Your task to perform on an android device: Clear all items from cart on bestbuy.com. Add "logitech g910" to the cart on bestbuy.com Image 0: 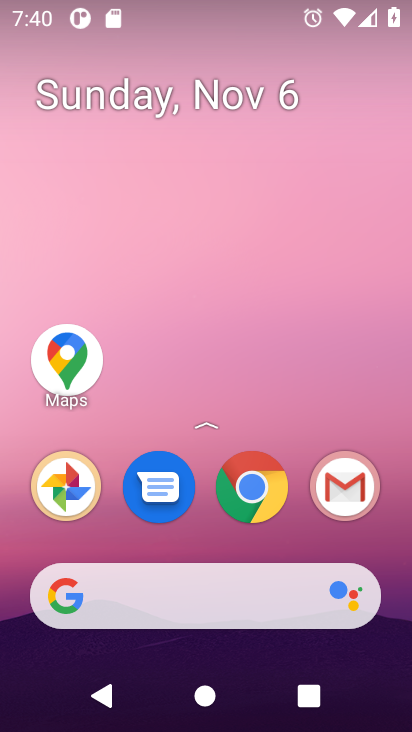
Step 0: click (251, 500)
Your task to perform on an android device: Clear all items from cart on bestbuy.com. Add "logitech g910" to the cart on bestbuy.com Image 1: 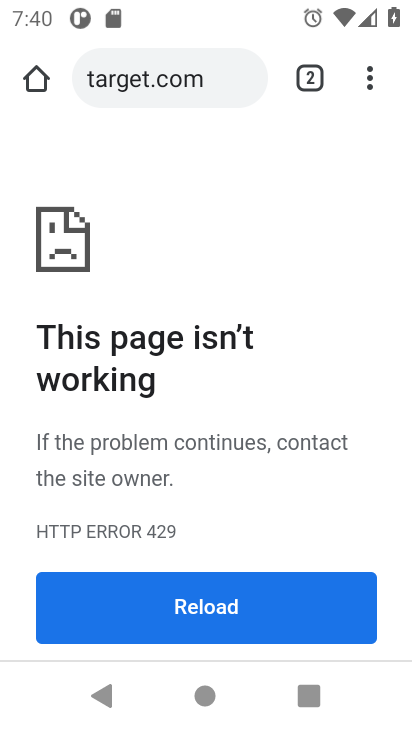
Step 1: click (199, 72)
Your task to perform on an android device: Clear all items from cart on bestbuy.com. Add "logitech g910" to the cart on bestbuy.com Image 2: 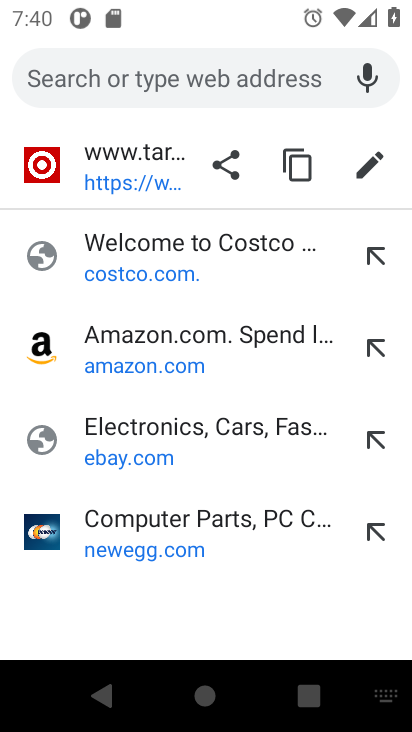
Step 2: type "bestbuy"
Your task to perform on an android device: Clear all items from cart on bestbuy.com. Add "logitech g910" to the cart on bestbuy.com Image 3: 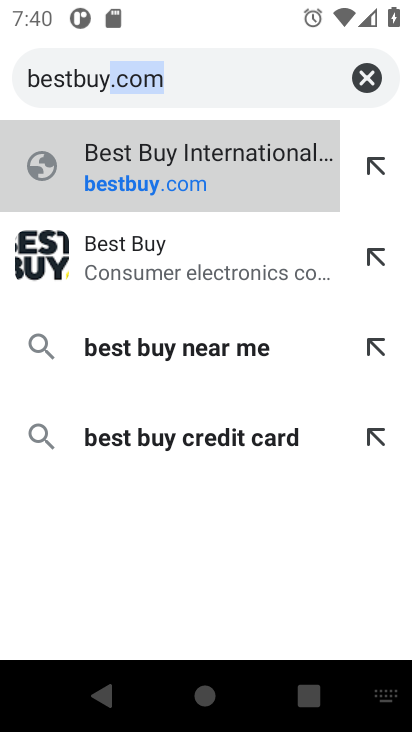
Step 3: click (53, 282)
Your task to perform on an android device: Clear all items from cart on bestbuy.com. Add "logitech g910" to the cart on bestbuy.com Image 4: 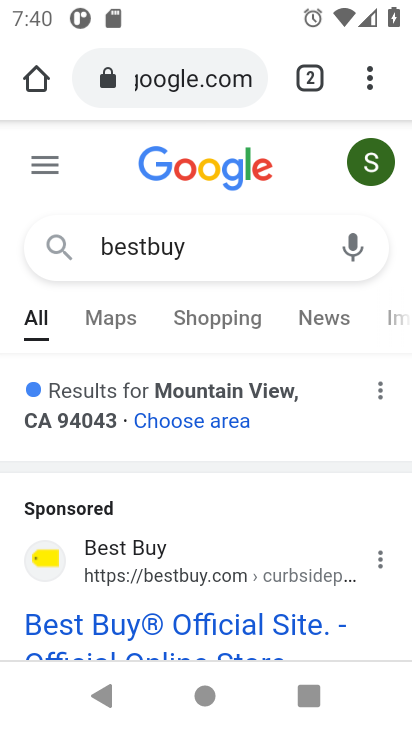
Step 4: click (86, 630)
Your task to perform on an android device: Clear all items from cart on bestbuy.com. Add "logitech g910" to the cart on bestbuy.com Image 5: 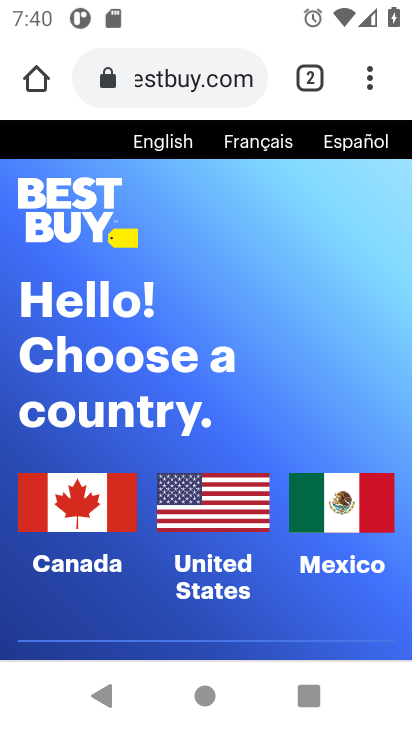
Step 5: click (147, 521)
Your task to perform on an android device: Clear all items from cart on bestbuy.com. Add "logitech g910" to the cart on bestbuy.com Image 6: 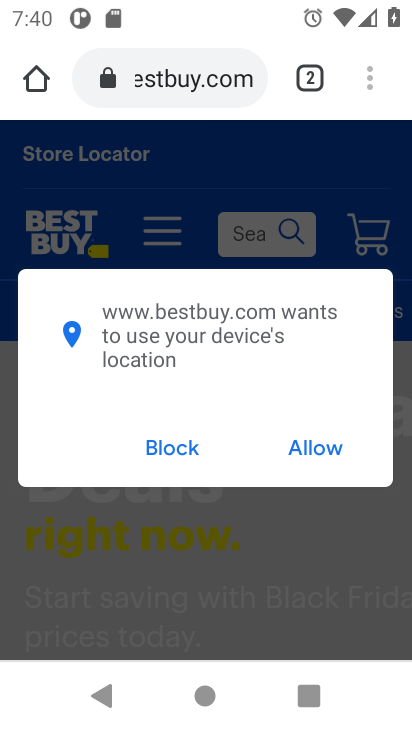
Step 6: click (292, 444)
Your task to perform on an android device: Clear all items from cart on bestbuy.com. Add "logitech g910" to the cart on bestbuy.com Image 7: 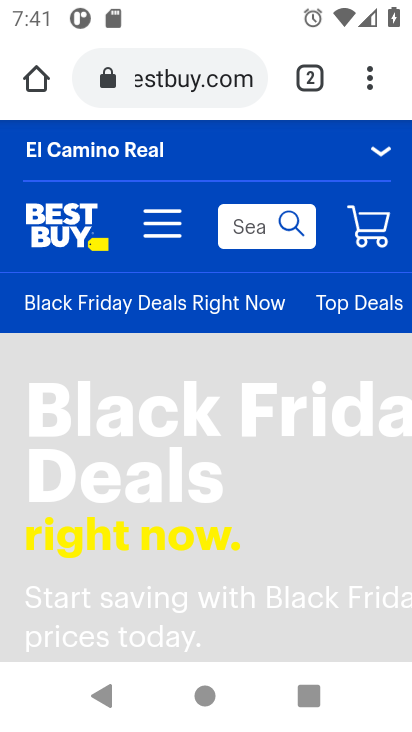
Step 7: click (372, 208)
Your task to perform on an android device: Clear all items from cart on bestbuy.com. Add "logitech g910" to the cart on bestbuy.com Image 8: 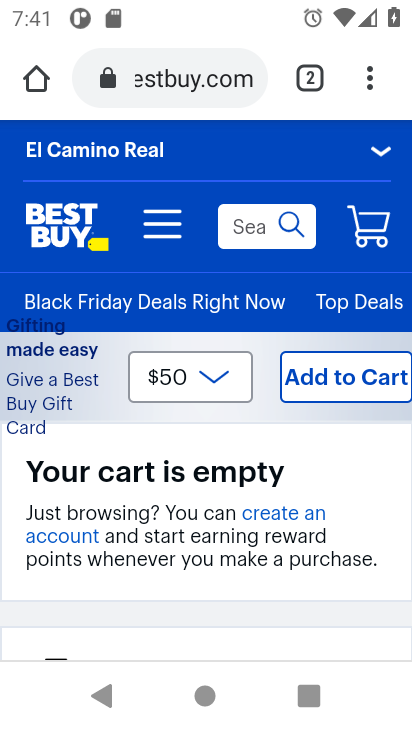
Step 8: click (231, 221)
Your task to perform on an android device: Clear all items from cart on bestbuy.com. Add "logitech g910" to the cart on bestbuy.com Image 9: 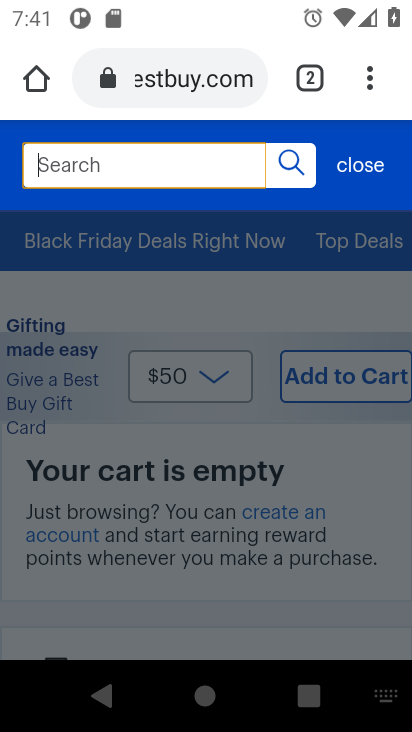
Step 9: type "logitech g910"
Your task to perform on an android device: Clear all items from cart on bestbuy.com. Add "logitech g910" to the cart on bestbuy.com Image 10: 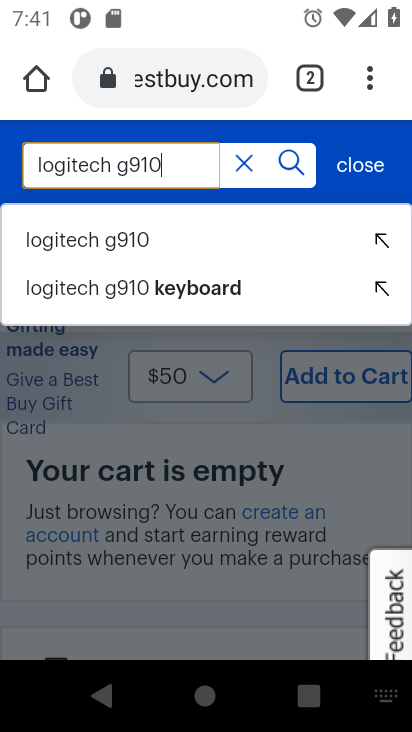
Step 10: click (277, 157)
Your task to perform on an android device: Clear all items from cart on bestbuy.com. Add "logitech g910" to the cart on bestbuy.com Image 11: 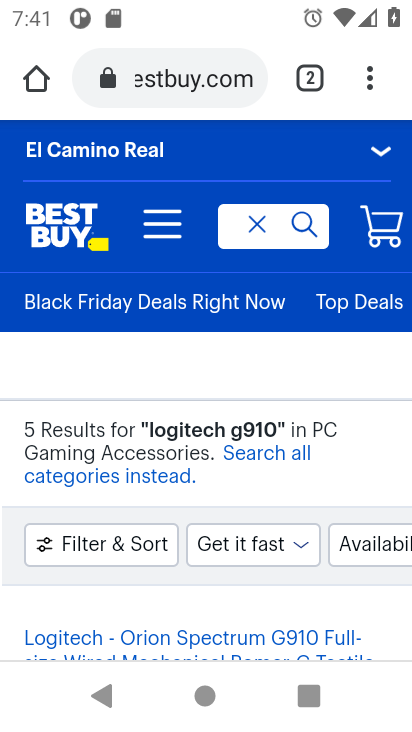
Step 11: task complete